Your task to perform on an android device: turn on location history Image 0: 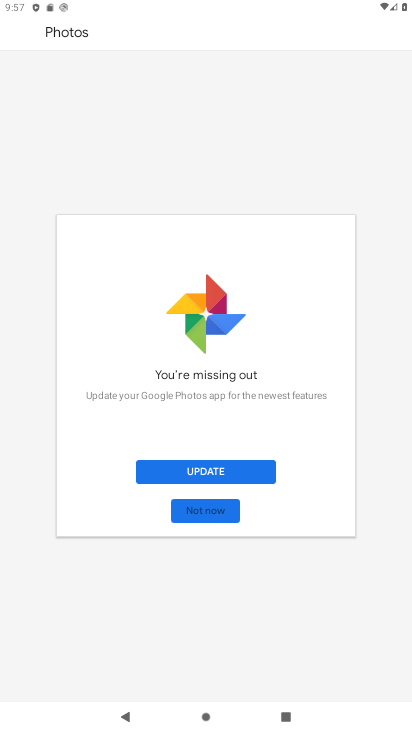
Step 0: press home button
Your task to perform on an android device: turn on location history Image 1: 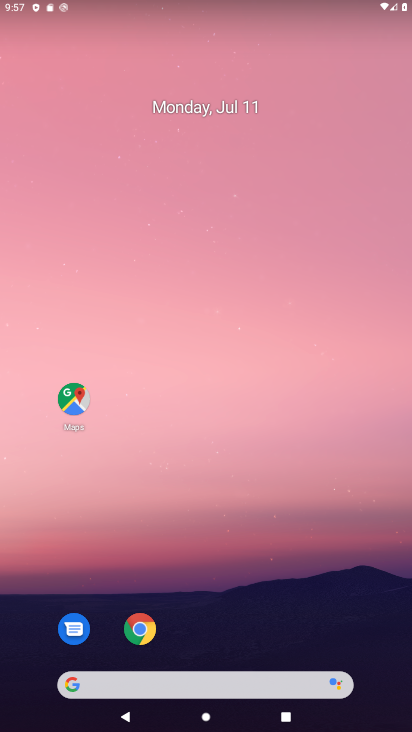
Step 1: drag from (211, 631) to (210, 170)
Your task to perform on an android device: turn on location history Image 2: 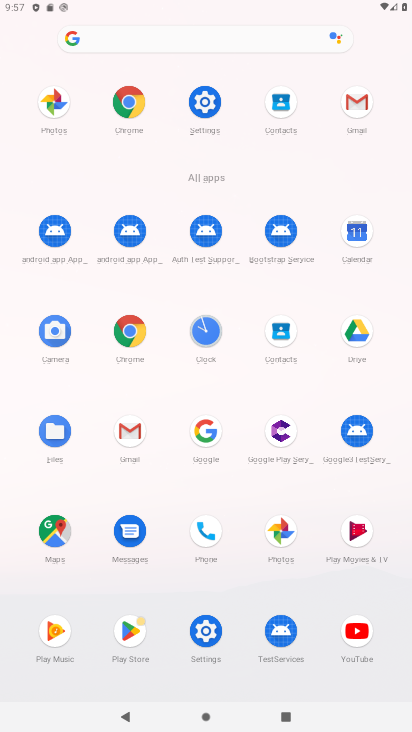
Step 2: click (193, 108)
Your task to perform on an android device: turn on location history Image 3: 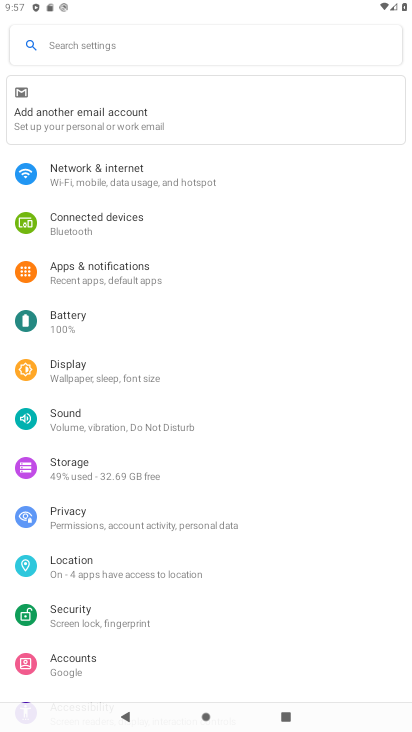
Step 3: click (102, 570)
Your task to perform on an android device: turn on location history Image 4: 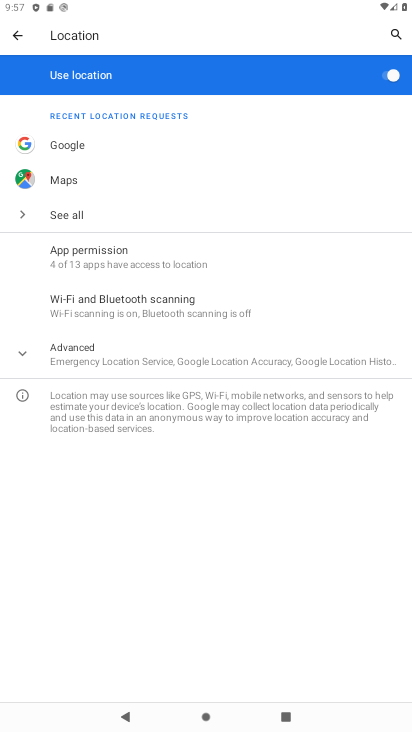
Step 4: click (122, 342)
Your task to perform on an android device: turn on location history Image 5: 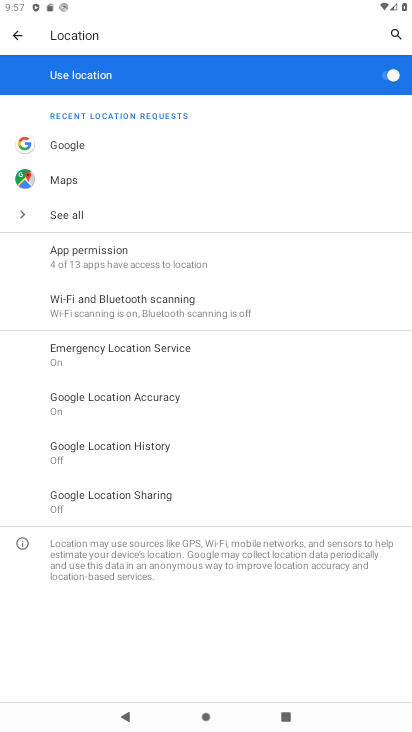
Step 5: click (208, 451)
Your task to perform on an android device: turn on location history Image 6: 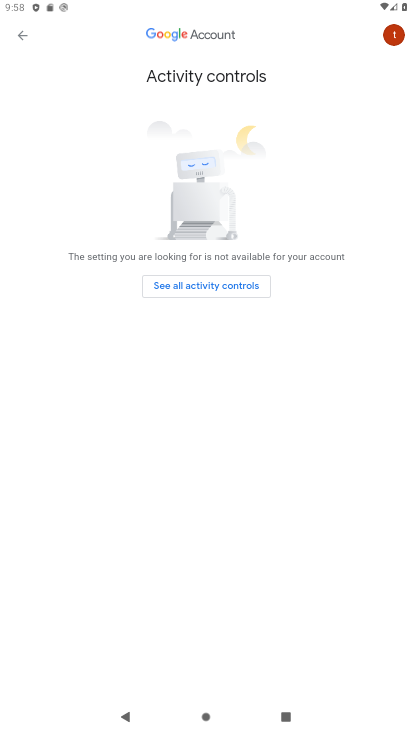
Step 6: click (20, 40)
Your task to perform on an android device: turn on location history Image 7: 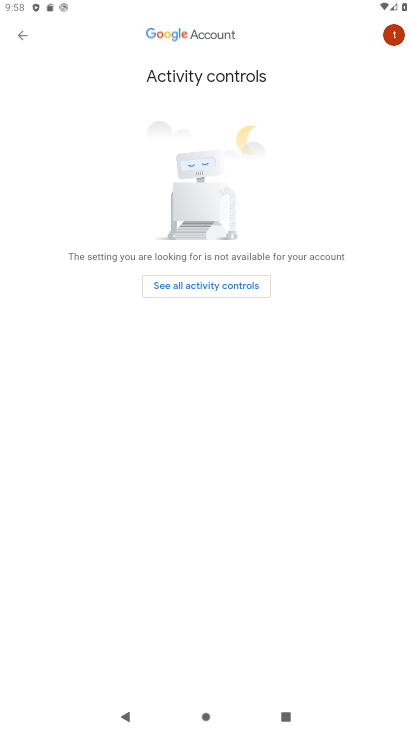
Step 7: click (20, 28)
Your task to perform on an android device: turn on location history Image 8: 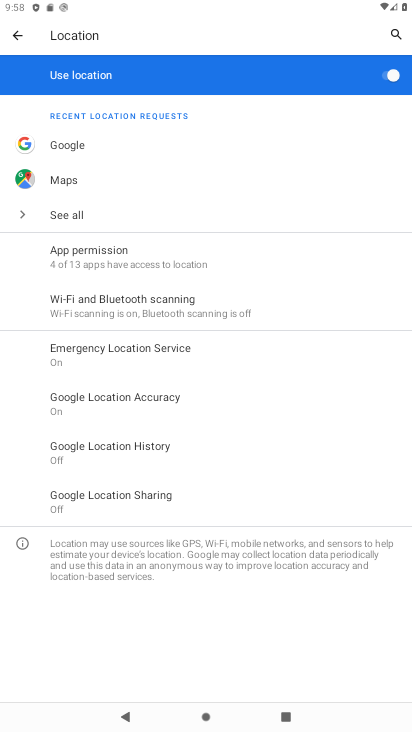
Step 8: click (167, 439)
Your task to perform on an android device: turn on location history Image 9: 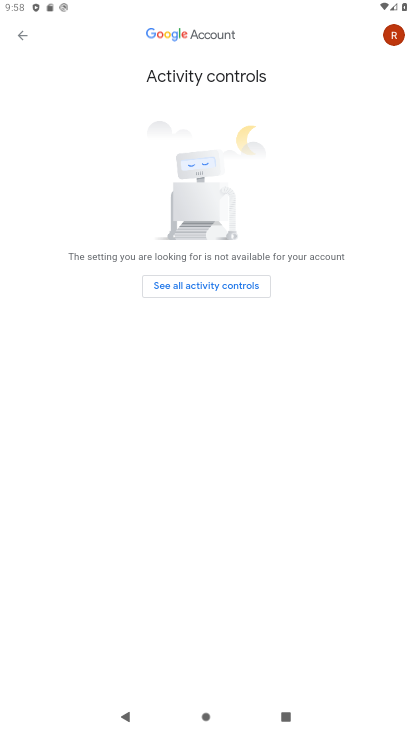
Step 9: task complete